Your task to perform on an android device: Show me recent news Image 0: 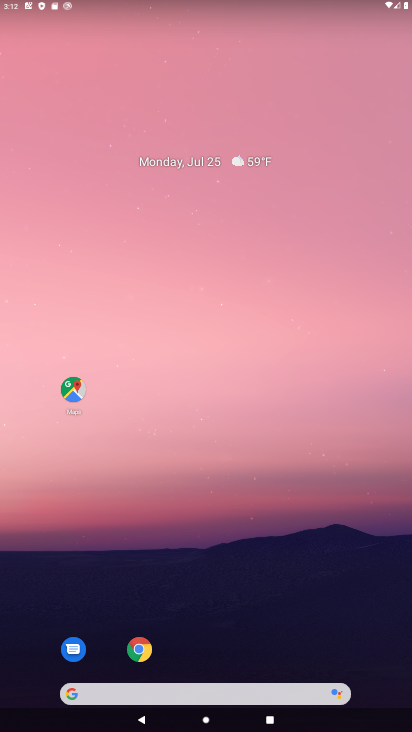
Step 0: drag from (180, 328) to (169, 132)
Your task to perform on an android device: Show me recent news Image 1: 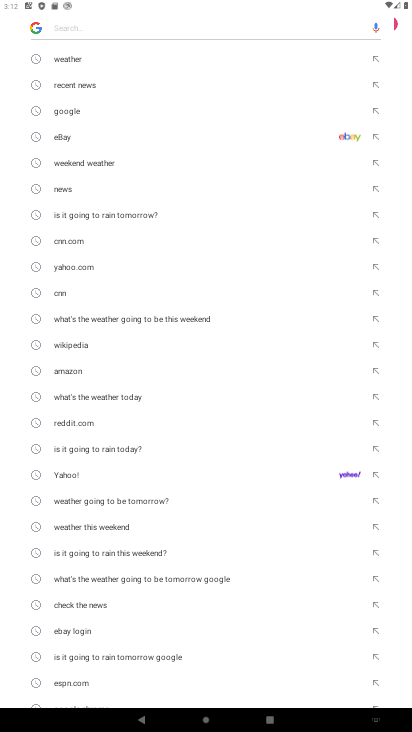
Step 1: click (71, 87)
Your task to perform on an android device: Show me recent news Image 2: 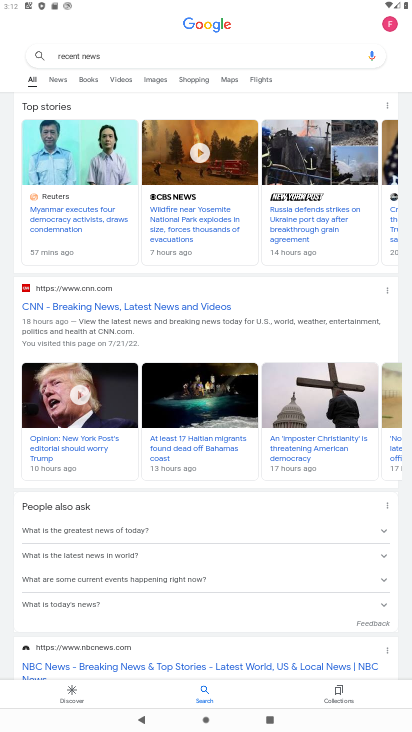
Step 2: task complete